Your task to perform on an android device: Open calendar and show me the first week of next month Image 0: 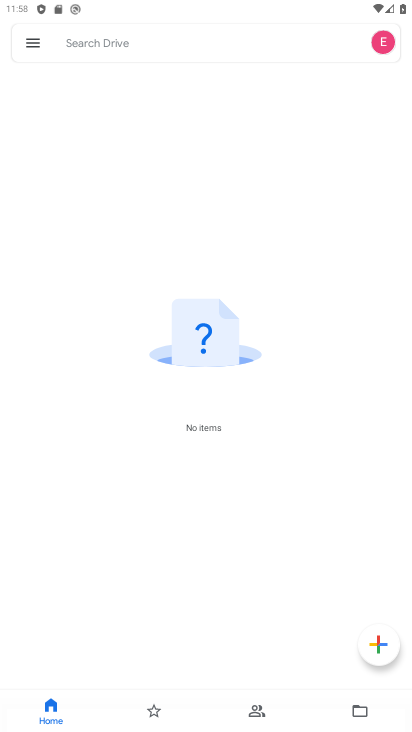
Step 0: task complete